Your task to perform on an android device: Turn on the flashlight Image 0: 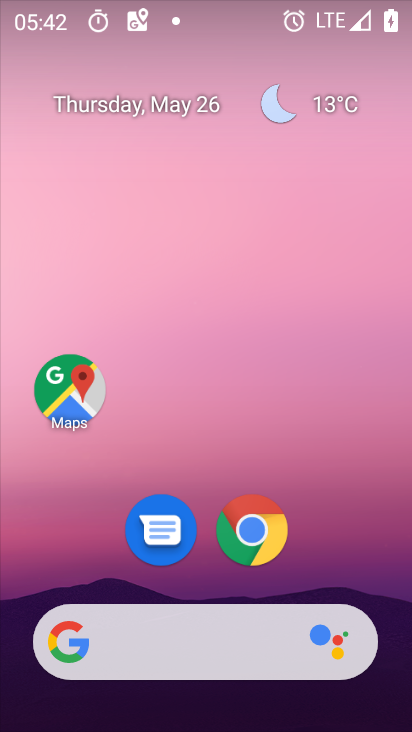
Step 0: drag from (278, 617) to (215, 69)
Your task to perform on an android device: Turn on the flashlight Image 1: 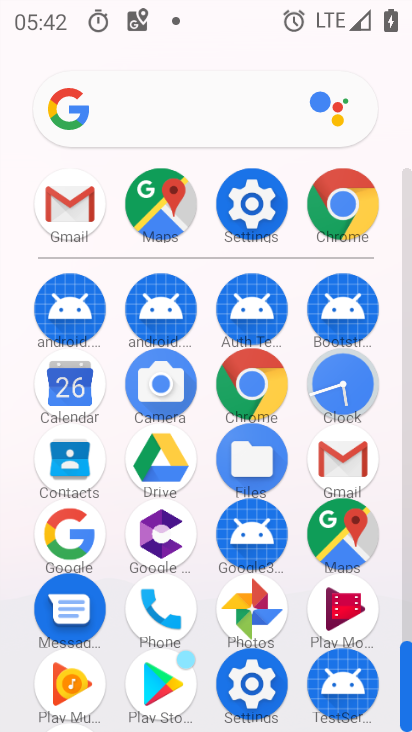
Step 1: click (264, 195)
Your task to perform on an android device: Turn on the flashlight Image 2: 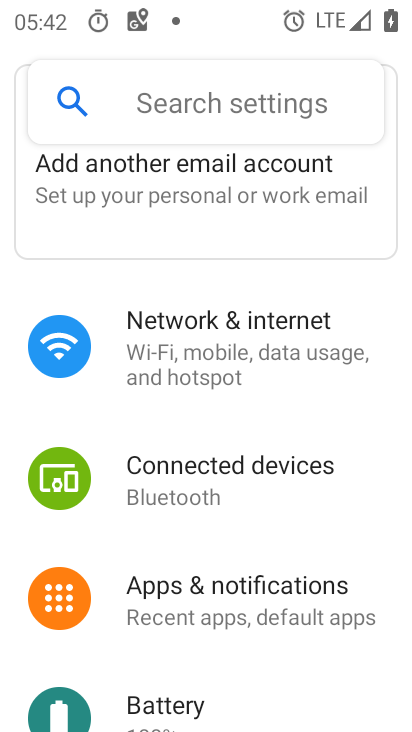
Step 2: task complete